Your task to perform on an android device: Show the shopping cart on walmart. Search for usb-c to usb-b on walmart, select the first entry, add it to the cart, then select checkout. Image 0: 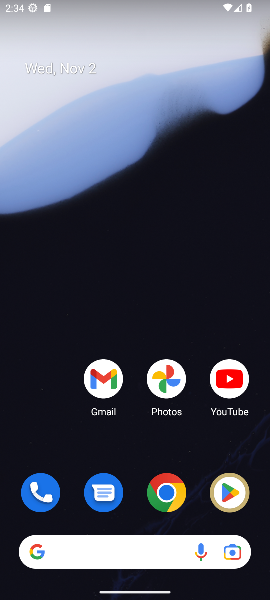
Step 0: click (167, 493)
Your task to perform on an android device: Show the shopping cart on walmart. Search for usb-c to usb-b on walmart, select the first entry, add it to the cart, then select checkout. Image 1: 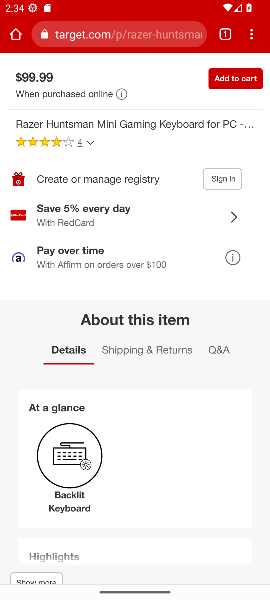
Step 1: click (141, 24)
Your task to perform on an android device: Show the shopping cart on walmart. Search for usb-c to usb-b on walmart, select the first entry, add it to the cart, then select checkout. Image 2: 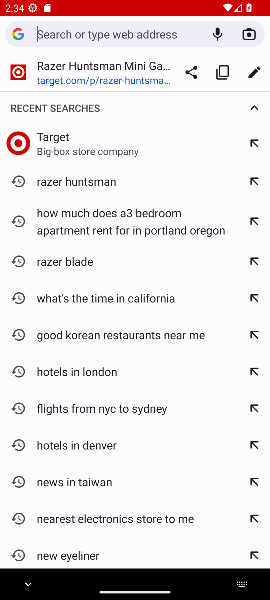
Step 2: type "walmart"
Your task to perform on an android device: Show the shopping cart on walmart. Search for usb-c to usb-b on walmart, select the first entry, add it to the cart, then select checkout. Image 3: 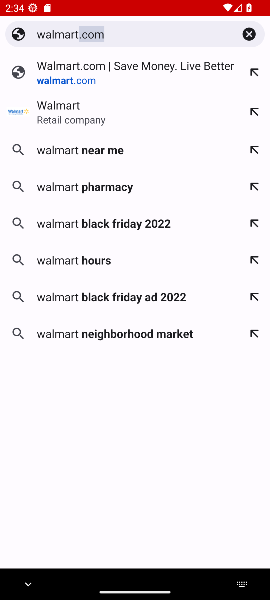
Step 3: click (57, 72)
Your task to perform on an android device: Show the shopping cart on walmart. Search for usb-c to usb-b on walmart, select the first entry, add it to the cart, then select checkout. Image 4: 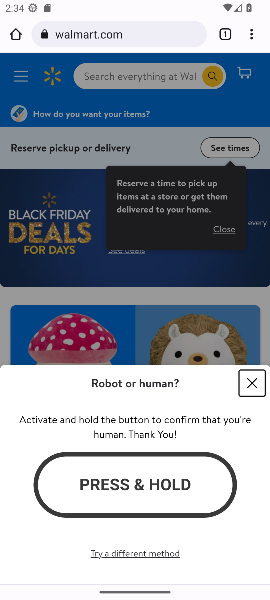
Step 4: click (113, 489)
Your task to perform on an android device: Show the shopping cart on walmart. Search for usb-c to usb-b on walmart, select the first entry, add it to the cart, then select checkout. Image 5: 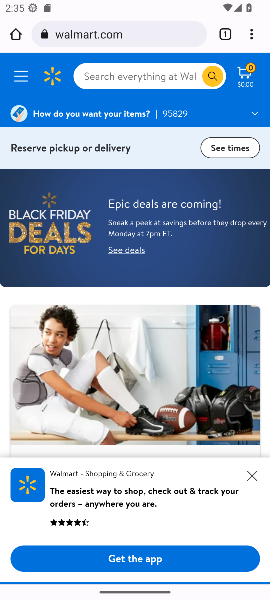
Step 5: click (252, 474)
Your task to perform on an android device: Show the shopping cart on walmart. Search for usb-c to usb-b on walmart, select the first entry, add it to the cart, then select checkout. Image 6: 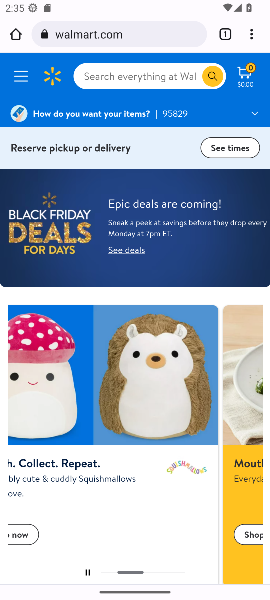
Step 6: click (247, 74)
Your task to perform on an android device: Show the shopping cart on walmart. Search for usb-c to usb-b on walmart, select the first entry, add it to the cart, then select checkout. Image 7: 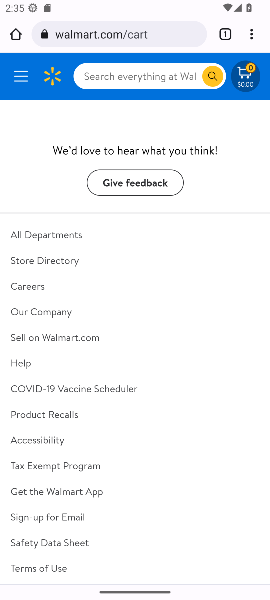
Step 7: click (95, 73)
Your task to perform on an android device: Show the shopping cart on walmart. Search for usb-c to usb-b on walmart, select the first entry, add it to the cart, then select checkout. Image 8: 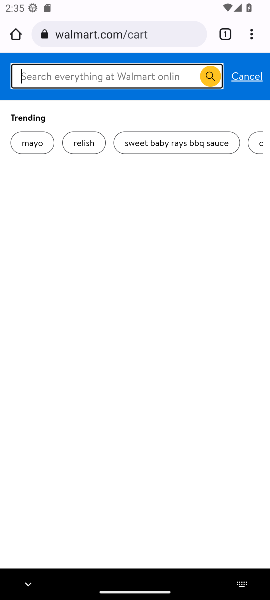
Step 8: type "usb-c to usb-b"
Your task to perform on an android device: Show the shopping cart on walmart. Search for usb-c to usb-b on walmart, select the first entry, add it to the cart, then select checkout. Image 9: 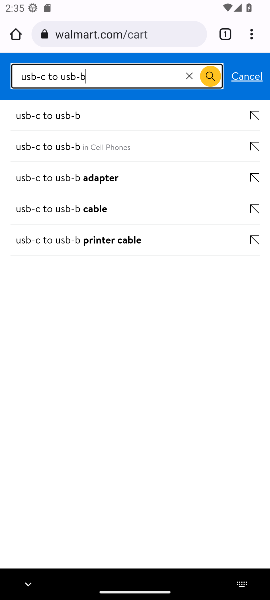
Step 9: click (38, 113)
Your task to perform on an android device: Show the shopping cart on walmart. Search for usb-c to usb-b on walmart, select the first entry, add it to the cart, then select checkout. Image 10: 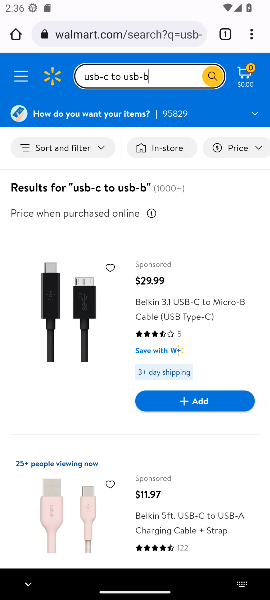
Step 10: drag from (147, 438) to (138, 219)
Your task to perform on an android device: Show the shopping cart on walmart. Search for usb-c to usb-b on walmart, select the first entry, add it to the cart, then select checkout. Image 11: 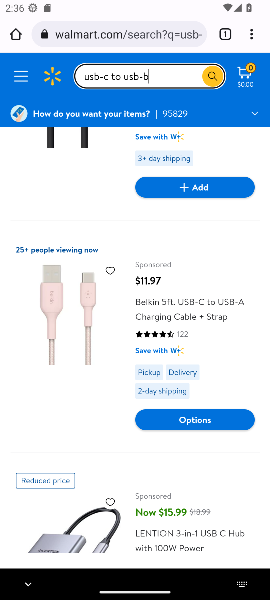
Step 11: drag from (127, 478) to (115, 566)
Your task to perform on an android device: Show the shopping cart on walmart. Search for usb-c to usb-b on walmart, select the first entry, add it to the cart, then select checkout. Image 12: 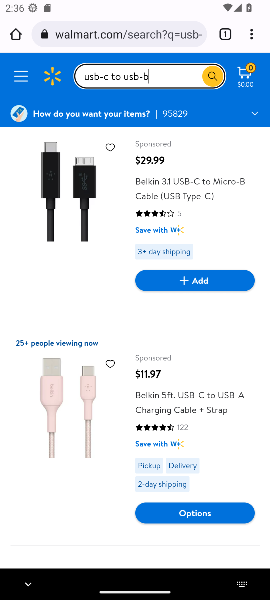
Step 12: click (185, 278)
Your task to perform on an android device: Show the shopping cart on walmart. Search for usb-c to usb-b on walmart, select the first entry, add it to the cart, then select checkout. Image 13: 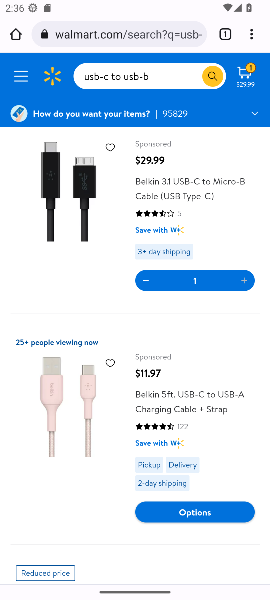
Step 13: click (245, 71)
Your task to perform on an android device: Show the shopping cart on walmart. Search for usb-c to usb-b on walmart, select the first entry, add it to the cart, then select checkout. Image 14: 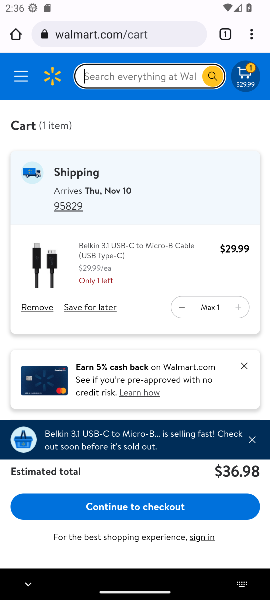
Step 14: click (137, 505)
Your task to perform on an android device: Show the shopping cart on walmart. Search for usb-c to usb-b on walmart, select the first entry, add it to the cart, then select checkout. Image 15: 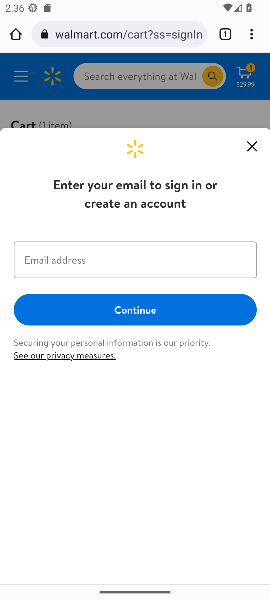
Step 15: task complete